Your task to perform on an android device: turn on notifications settings in the gmail app Image 0: 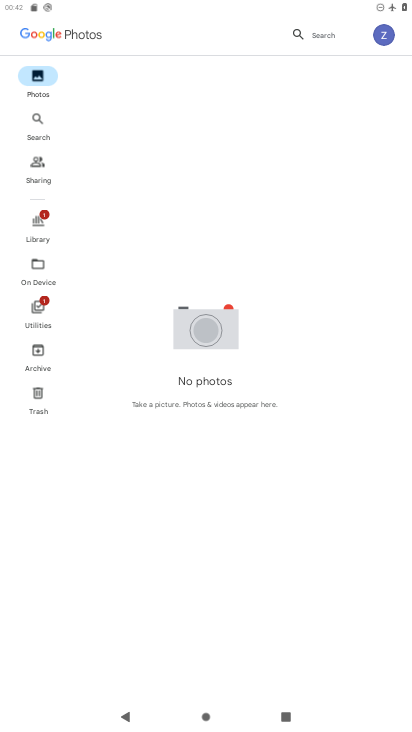
Step 0: press home button
Your task to perform on an android device: turn on notifications settings in the gmail app Image 1: 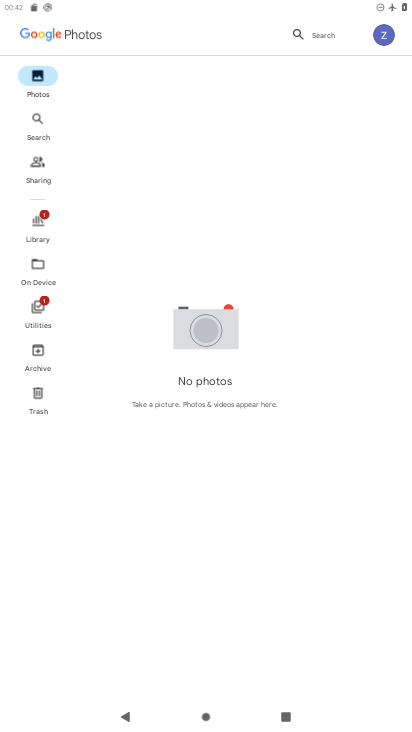
Step 1: drag from (165, 609) to (270, 145)
Your task to perform on an android device: turn on notifications settings in the gmail app Image 2: 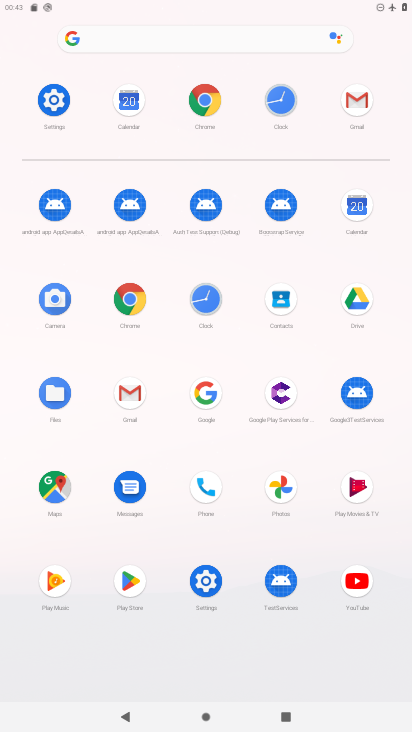
Step 2: click (124, 390)
Your task to perform on an android device: turn on notifications settings in the gmail app Image 3: 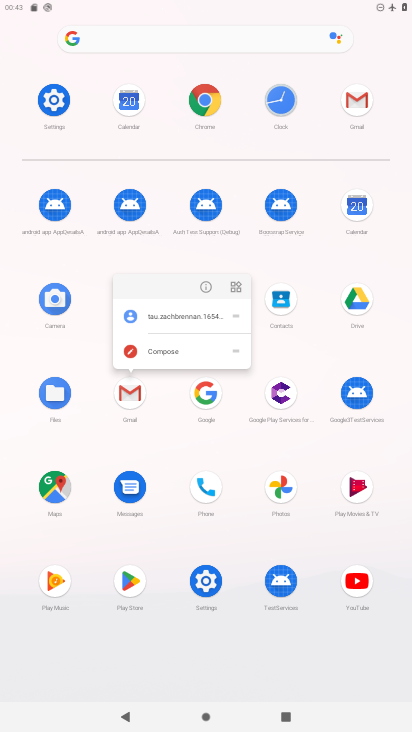
Step 3: click (203, 289)
Your task to perform on an android device: turn on notifications settings in the gmail app Image 4: 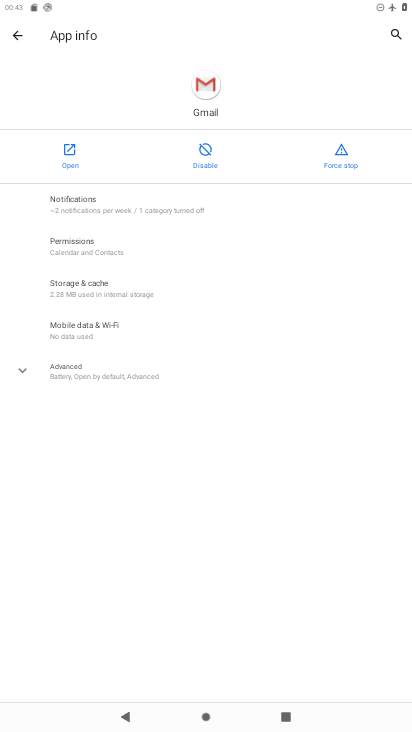
Step 4: click (78, 172)
Your task to perform on an android device: turn on notifications settings in the gmail app Image 5: 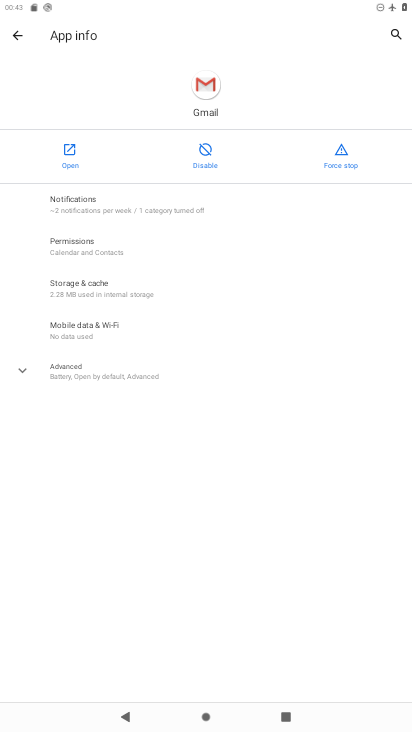
Step 5: click (80, 176)
Your task to perform on an android device: turn on notifications settings in the gmail app Image 6: 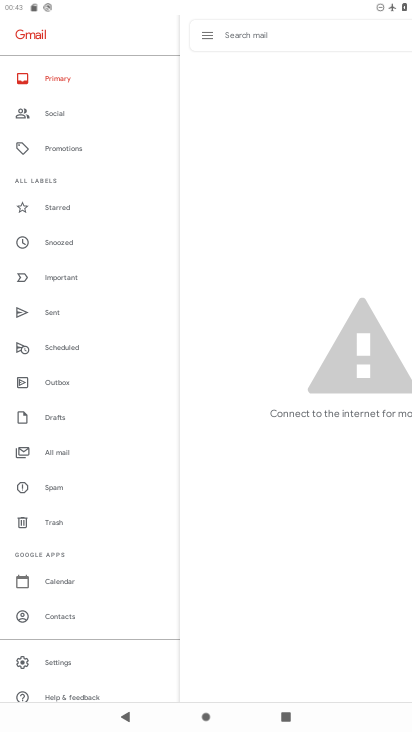
Step 6: click (84, 661)
Your task to perform on an android device: turn on notifications settings in the gmail app Image 7: 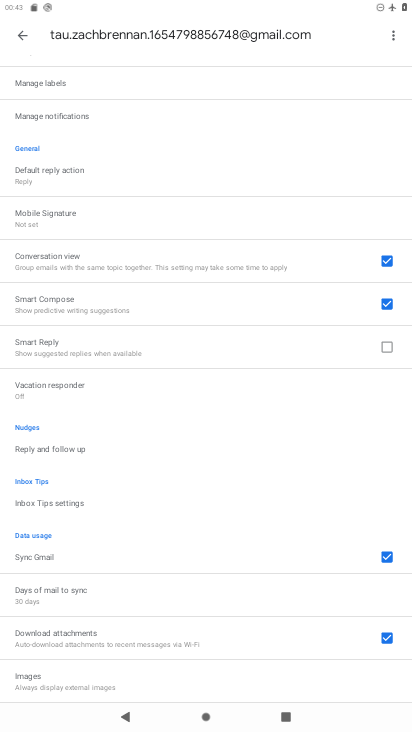
Step 7: click (95, 118)
Your task to perform on an android device: turn on notifications settings in the gmail app Image 8: 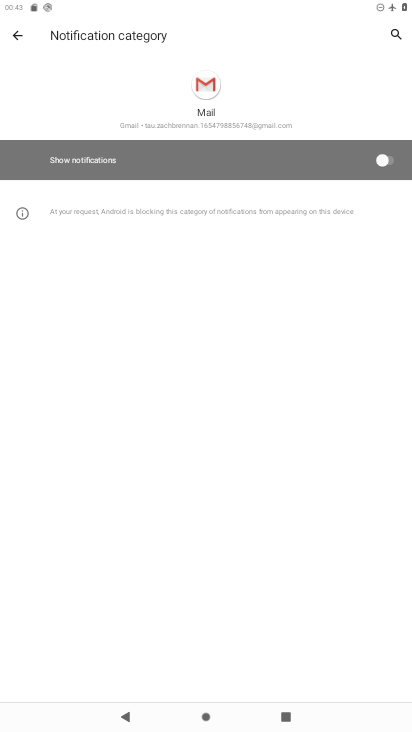
Step 8: click (365, 164)
Your task to perform on an android device: turn on notifications settings in the gmail app Image 9: 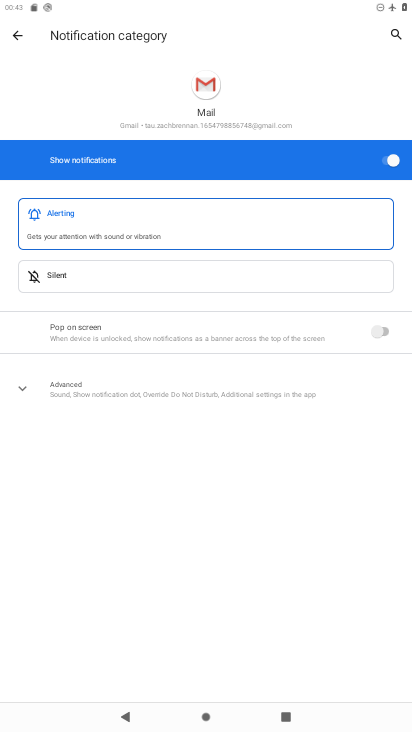
Step 9: task complete